Your task to perform on an android device: Open accessibility settings Image 0: 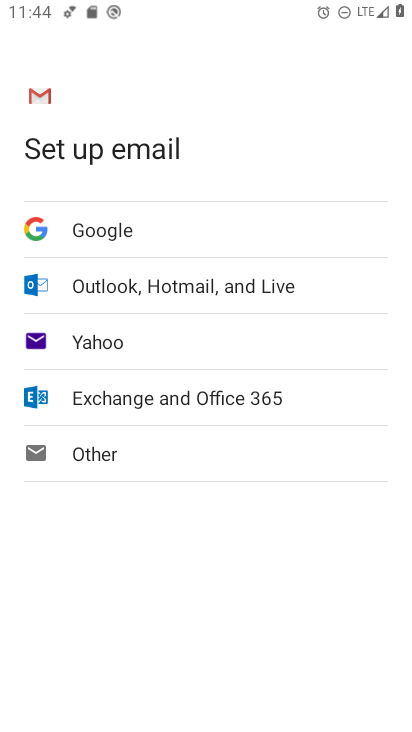
Step 0: press home button
Your task to perform on an android device: Open accessibility settings Image 1: 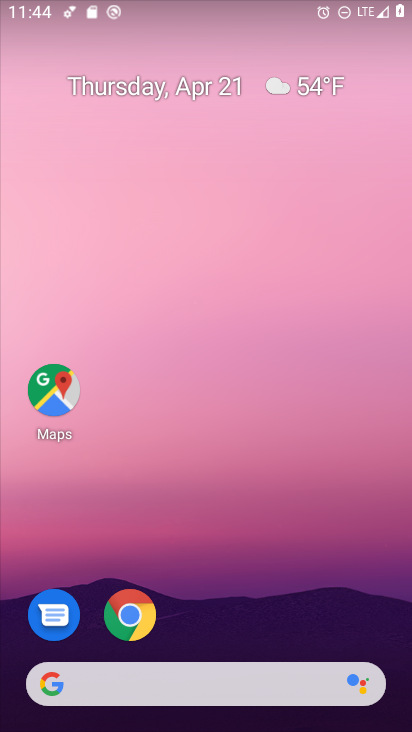
Step 1: drag from (295, 628) to (247, 171)
Your task to perform on an android device: Open accessibility settings Image 2: 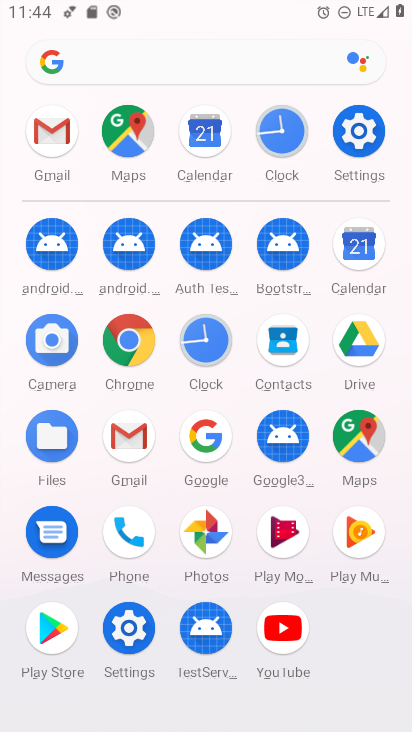
Step 2: click (132, 636)
Your task to perform on an android device: Open accessibility settings Image 3: 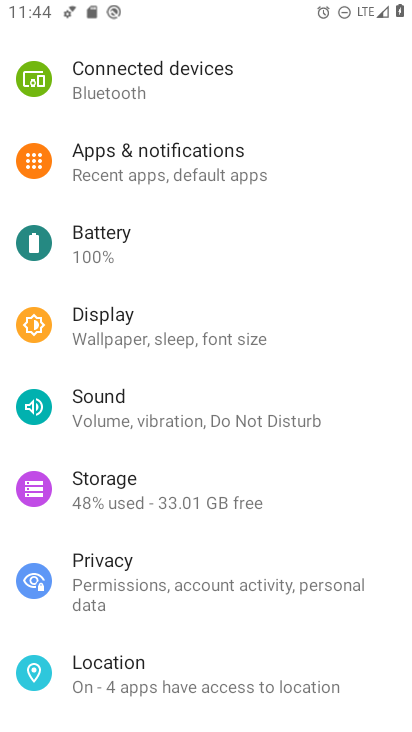
Step 3: drag from (141, 670) to (138, 598)
Your task to perform on an android device: Open accessibility settings Image 4: 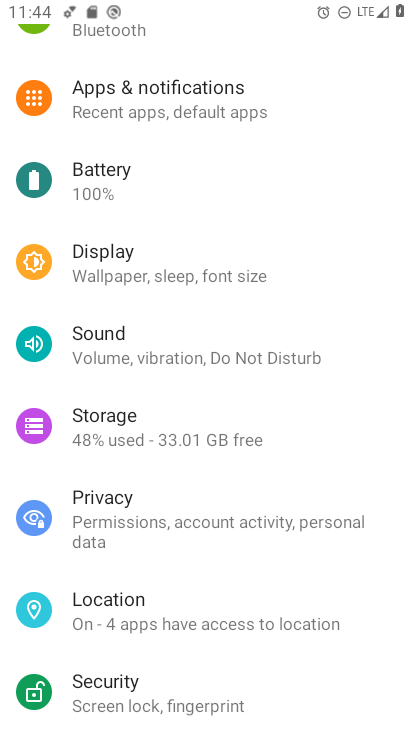
Step 4: drag from (163, 658) to (153, 600)
Your task to perform on an android device: Open accessibility settings Image 5: 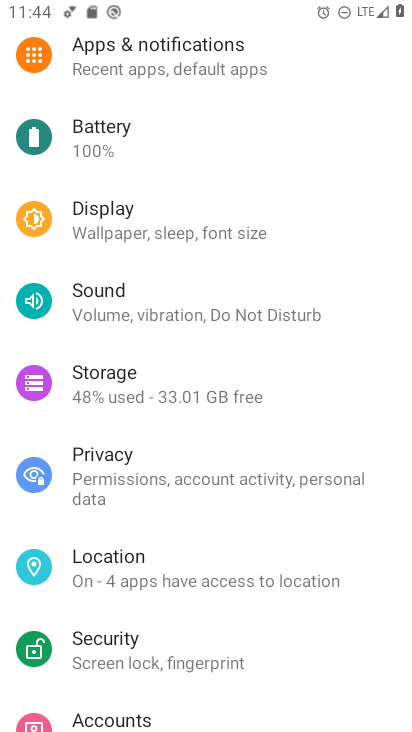
Step 5: drag from (149, 664) to (165, 561)
Your task to perform on an android device: Open accessibility settings Image 6: 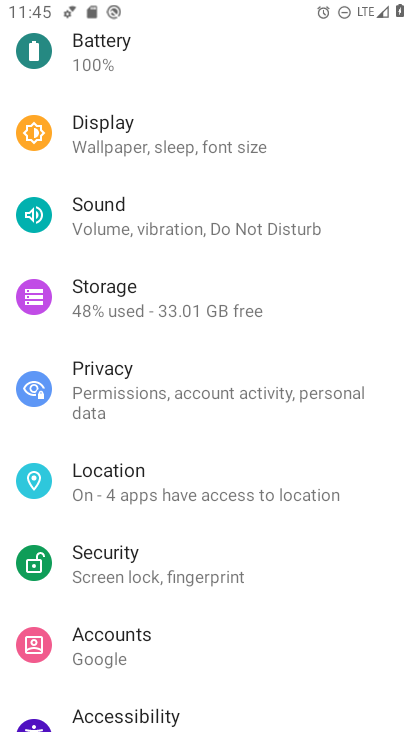
Step 6: drag from (189, 655) to (197, 575)
Your task to perform on an android device: Open accessibility settings Image 7: 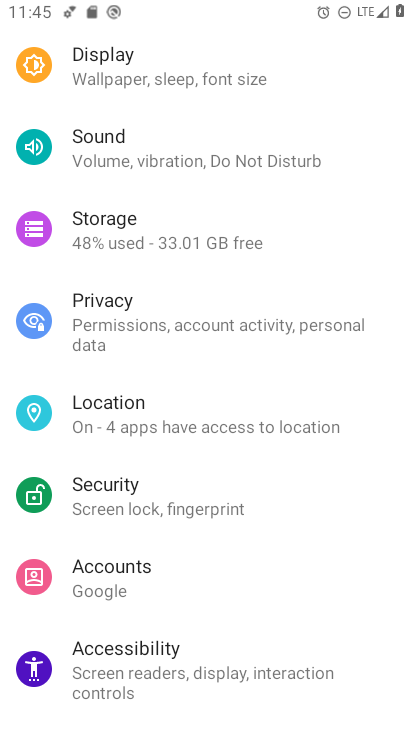
Step 7: click (192, 653)
Your task to perform on an android device: Open accessibility settings Image 8: 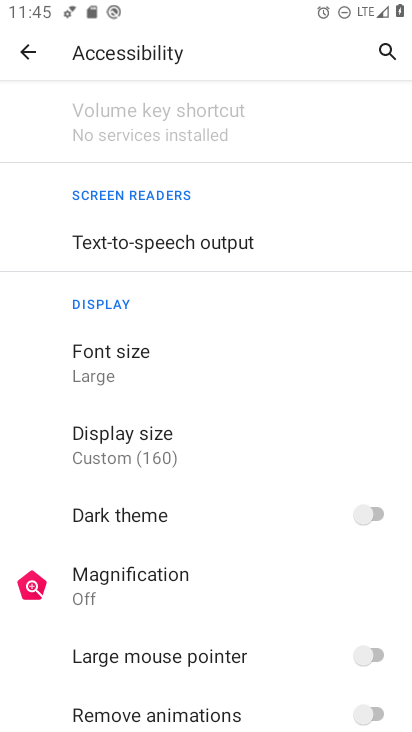
Step 8: task complete